Your task to perform on an android device: Open the map Image 0: 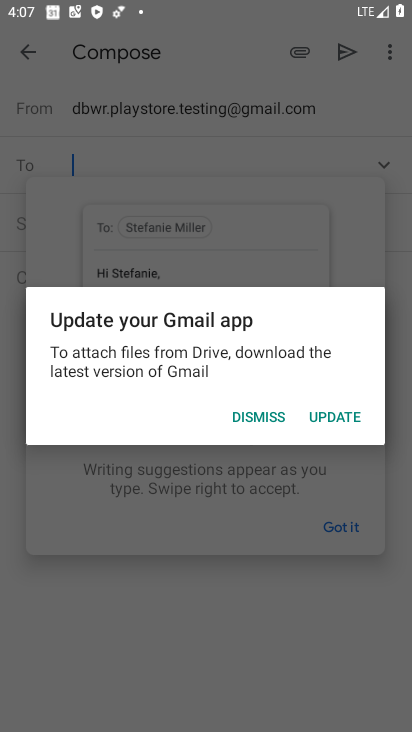
Step 0: press home button
Your task to perform on an android device: Open the map Image 1: 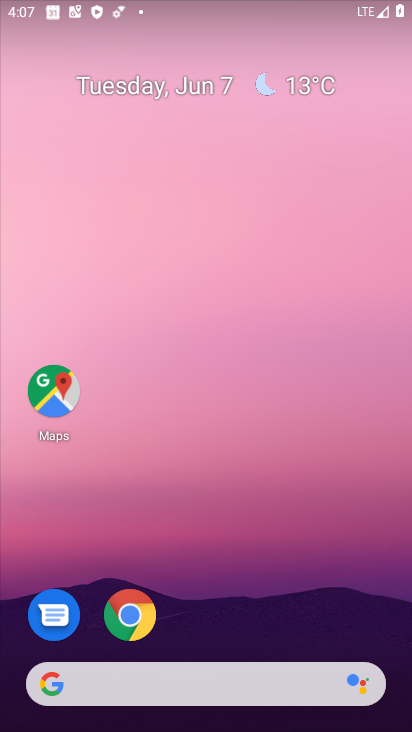
Step 1: drag from (197, 725) to (203, 45)
Your task to perform on an android device: Open the map Image 2: 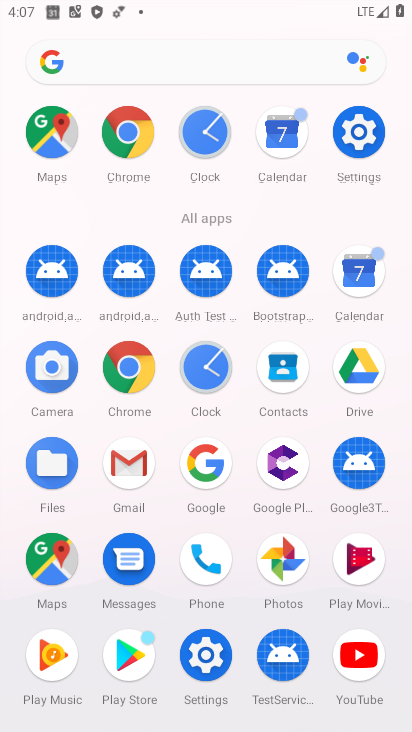
Step 2: click (51, 555)
Your task to perform on an android device: Open the map Image 3: 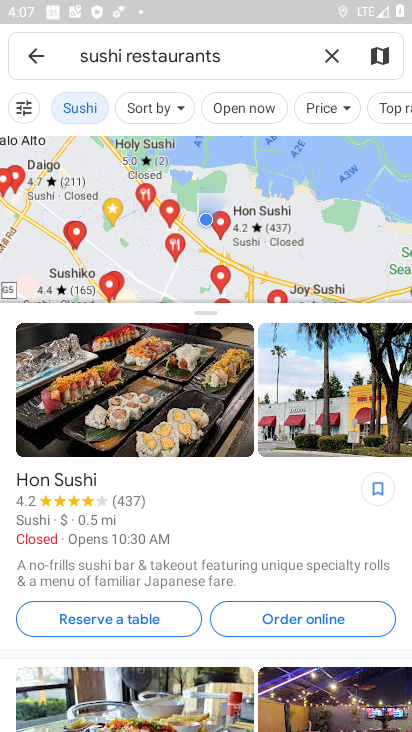
Step 3: task complete